Your task to perform on an android device: Open settings on Google Maps Image 0: 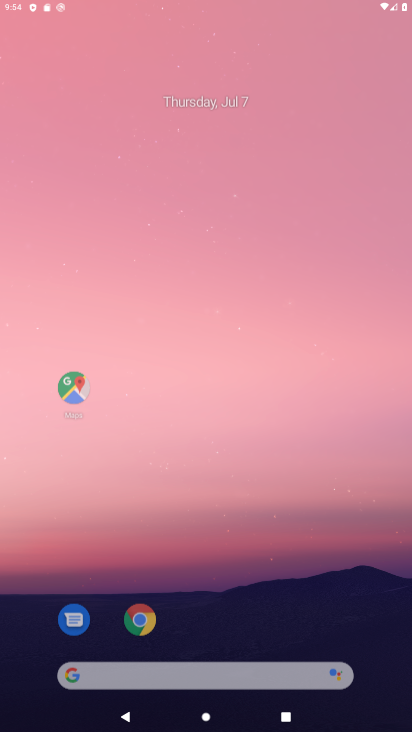
Step 0: press home button
Your task to perform on an android device: Open settings on Google Maps Image 1: 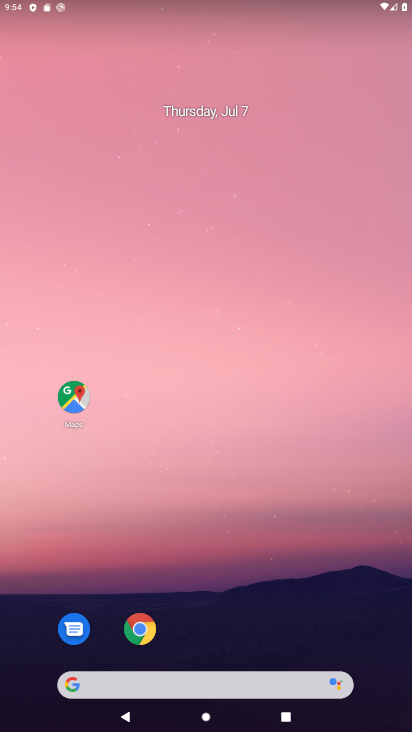
Step 1: drag from (245, 639) to (229, 82)
Your task to perform on an android device: Open settings on Google Maps Image 2: 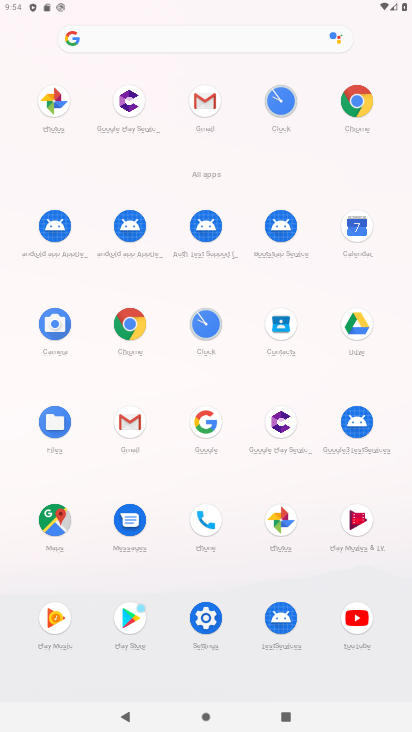
Step 2: click (52, 525)
Your task to perform on an android device: Open settings on Google Maps Image 3: 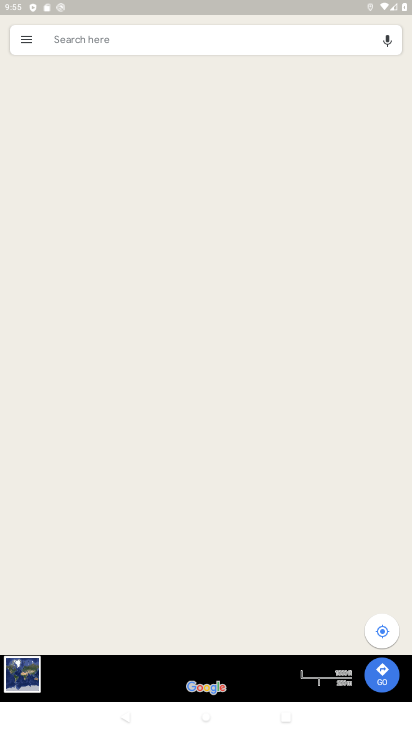
Step 3: click (25, 42)
Your task to perform on an android device: Open settings on Google Maps Image 4: 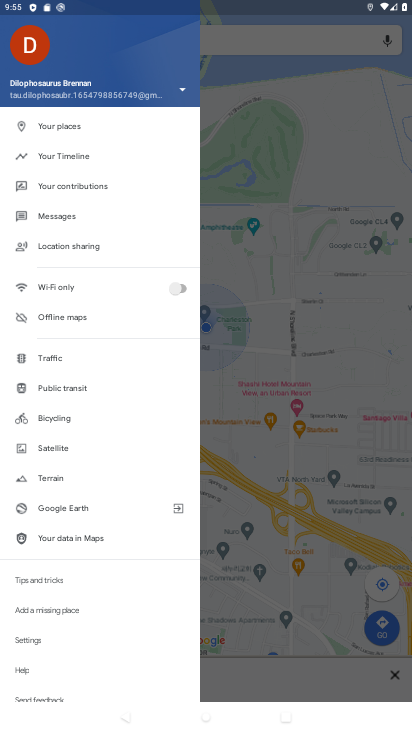
Step 4: click (22, 641)
Your task to perform on an android device: Open settings on Google Maps Image 5: 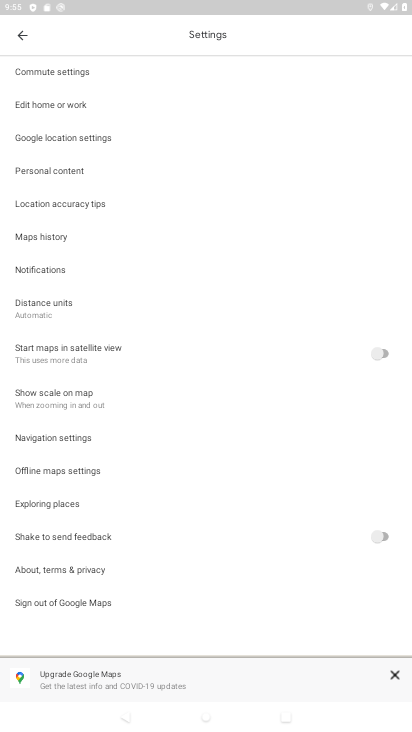
Step 5: task complete